Your task to perform on an android device: Open accessibility settings Image 0: 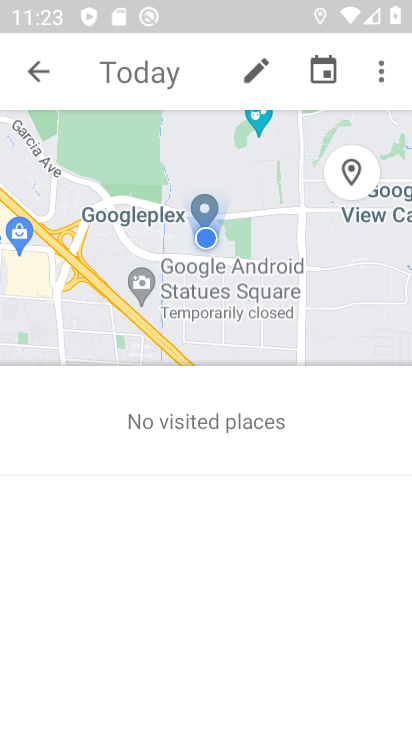
Step 0: press home button
Your task to perform on an android device: Open accessibility settings Image 1: 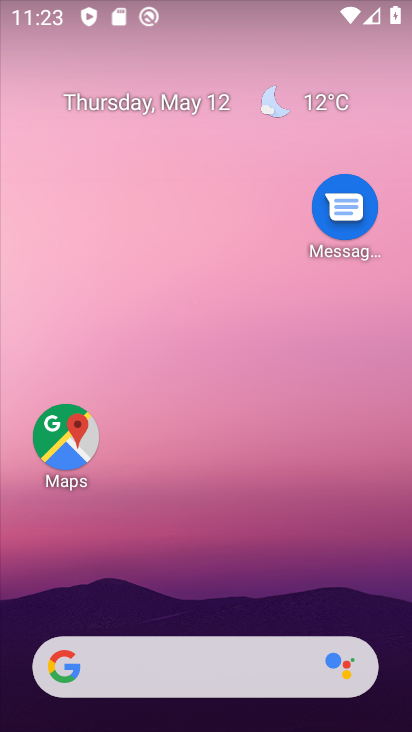
Step 1: drag from (315, 557) to (252, 97)
Your task to perform on an android device: Open accessibility settings Image 2: 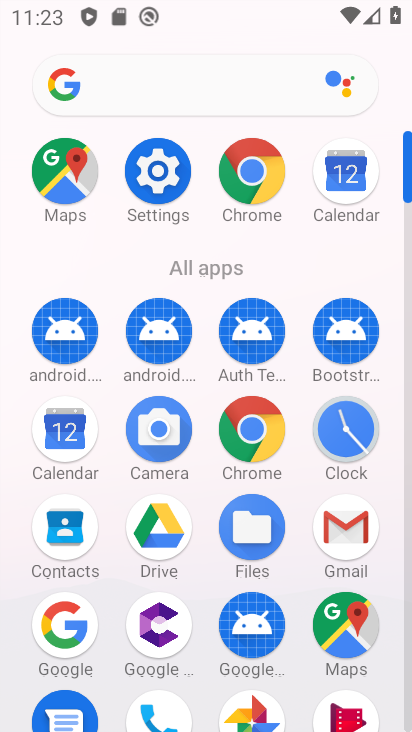
Step 2: click (158, 157)
Your task to perform on an android device: Open accessibility settings Image 3: 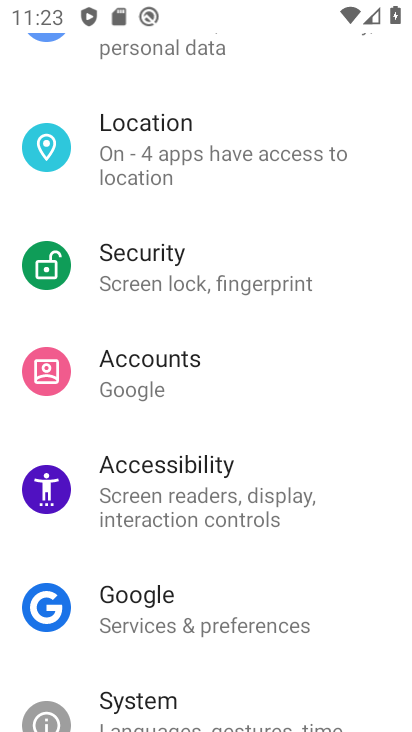
Step 3: click (145, 478)
Your task to perform on an android device: Open accessibility settings Image 4: 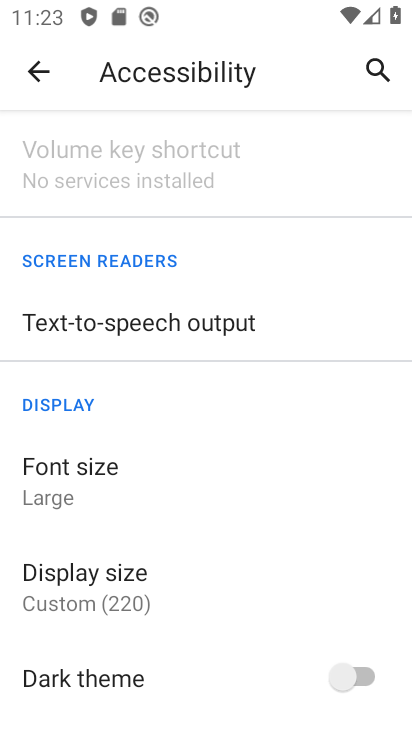
Step 4: task complete